Your task to perform on an android device: Go to Reddit.com Image 0: 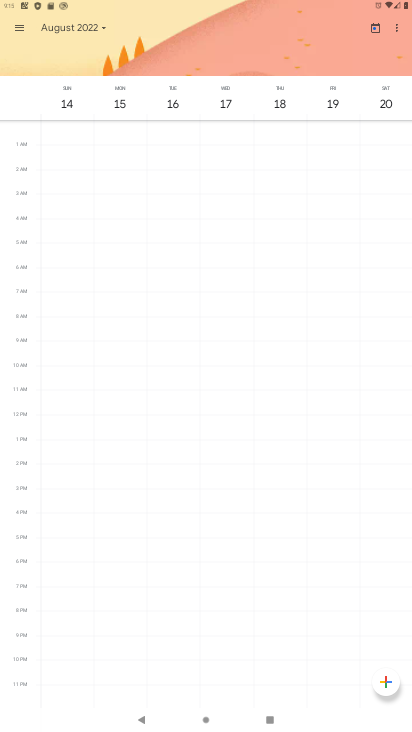
Step 0: press home button
Your task to perform on an android device: Go to Reddit.com Image 1: 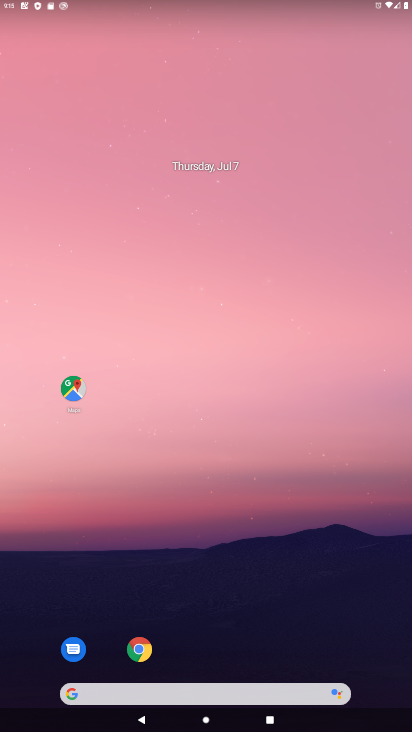
Step 1: drag from (152, 672) to (239, 111)
Your task to perform on an android device: Go to Reddit.com Image 2: 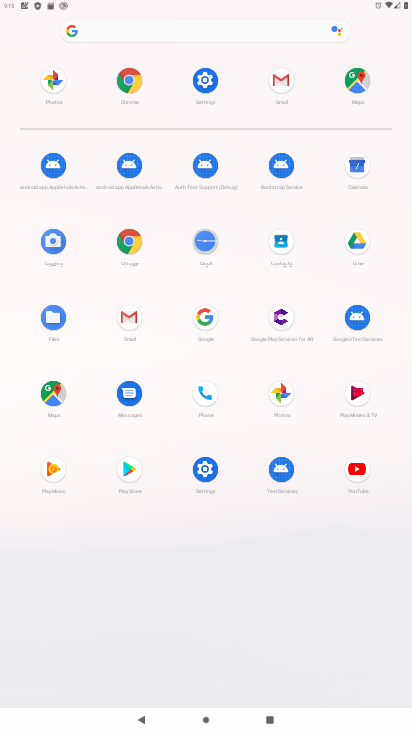
Step 2: click (130, 240)
Your task to perform on an android device: Go to Reddit.com Image 3: 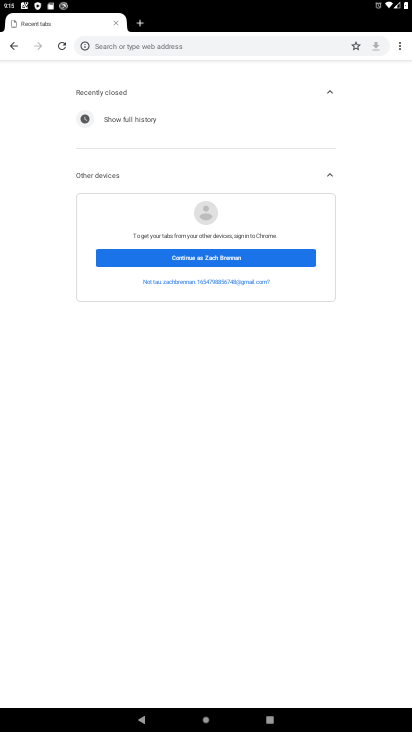
Step 3: drag from (396, 44) to (340, 48)
Your task to perform on an android device: Go to Reddit.com Image 4: 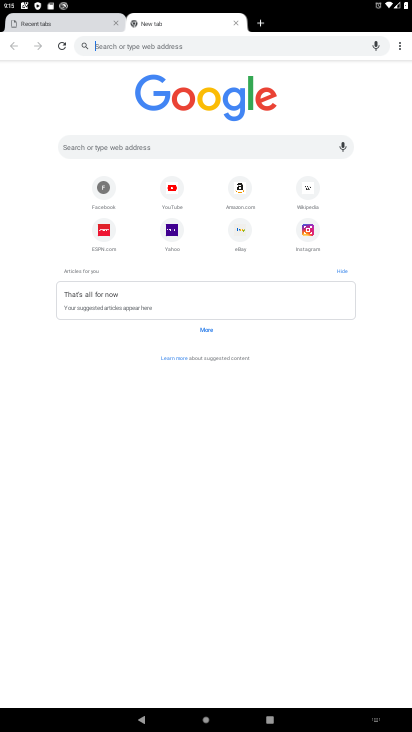
Step 4: type "reddit.com"
Your task to perform on an android device: Go to Reddit.com Image 5: 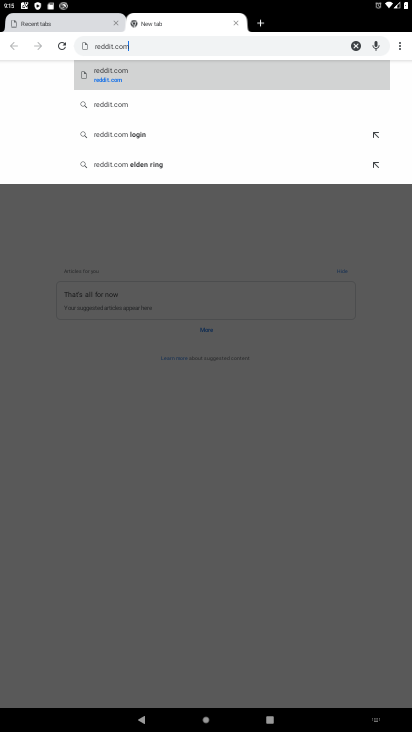
Step 5: click (95, 72)
Your task to perform on an android device: Go to Reddit.com Image 6: 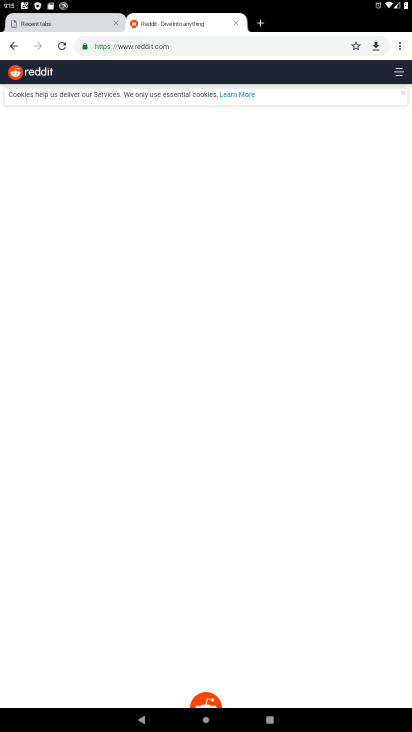
Step 6: task complete